Your task to perform on an android device: Open privacy settings Image 0: 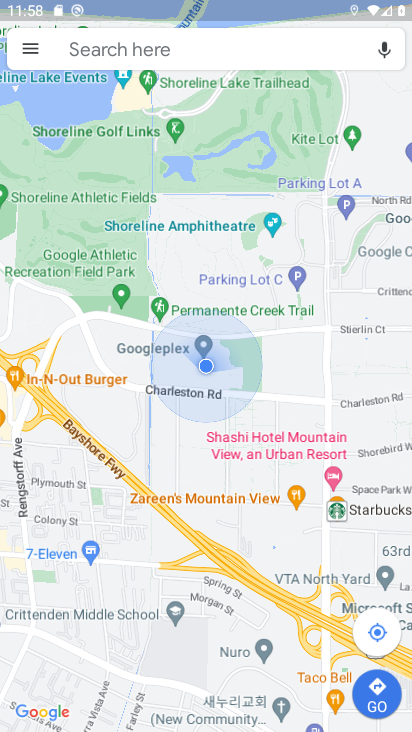
Step 0: press home button
Your task to perform on an android device: Open privacy settings Image 1: 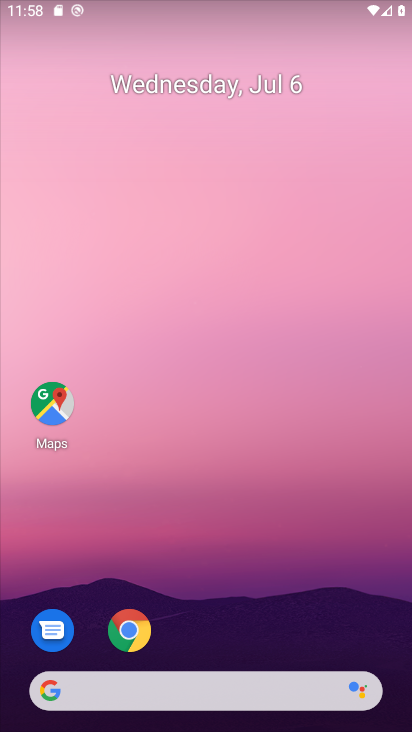
Step 1: drag from (221, 636) to (224, 330)
Your task to perform on an android device: Open privacy settings Image 2: 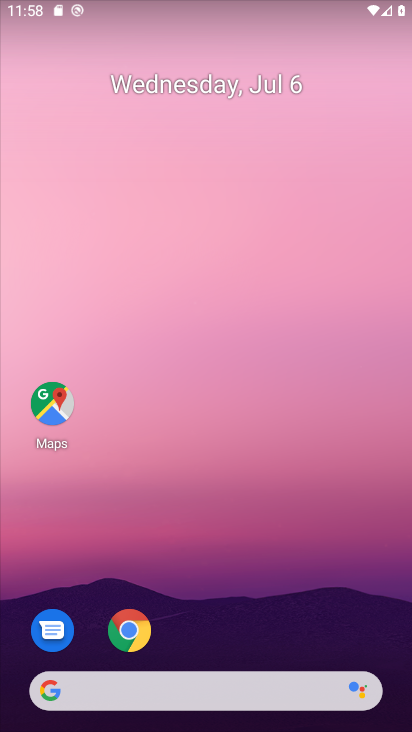
Step 2: drag from (175, 644) to (226, 344)
Your task to perform on an android device: Open privacy settings Image 3: 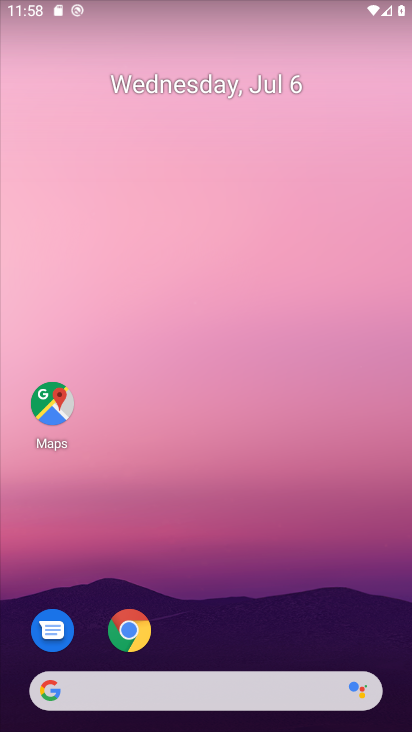
Step 3: drag from (172, 630) to (177, 238)
Your task to perform on an android device: Open privacy settings Image 4: 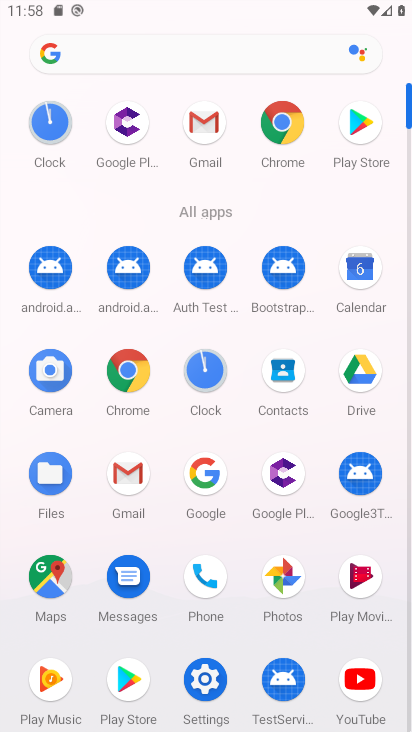
Step 4: click (114, 367)
Your task to perform on an android device: Open privacy settings Image 5: 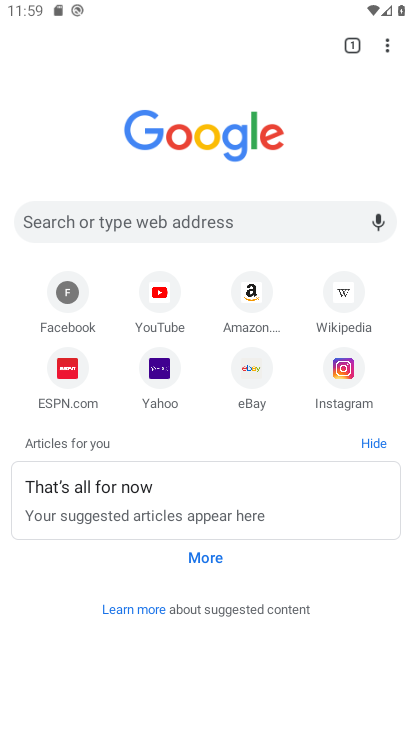
Step 5: click (386, 39)
Your task to perform on an android device: Open privacy settings Image 6: 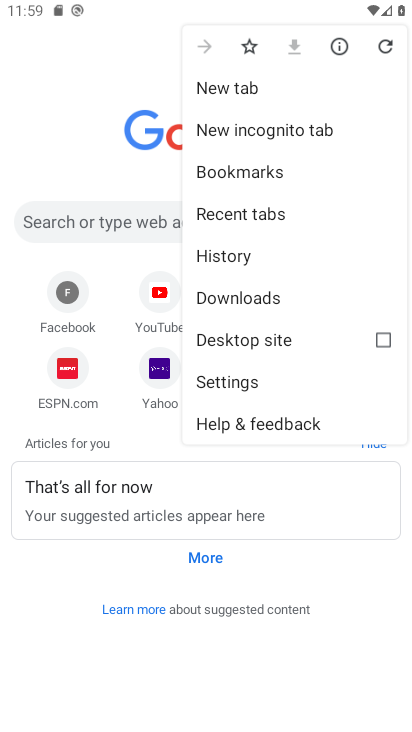
Step 6: click (217, 378)
Your task to perform on an android device: Open privacy settings Image 7: 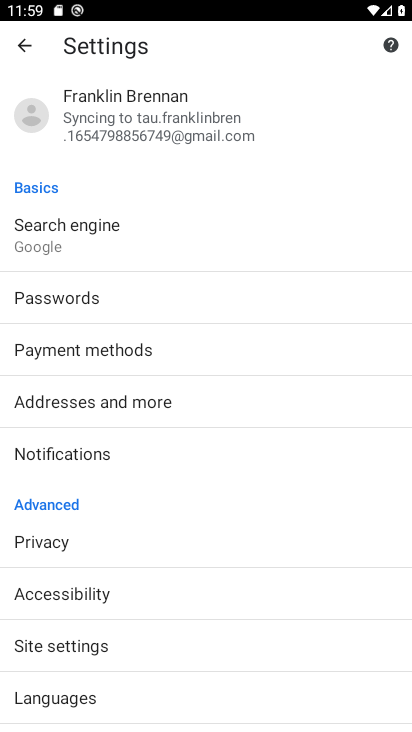
Step 7: click (68, 537)
Your task to perform on an android device: Open privacy settings Image 8: 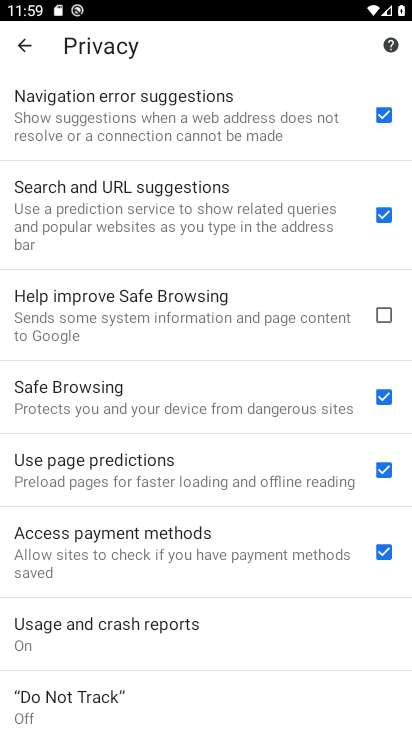
Step 8: task complete